Your task to perform on an android device: toggle pop-ups in chrome Image 0: 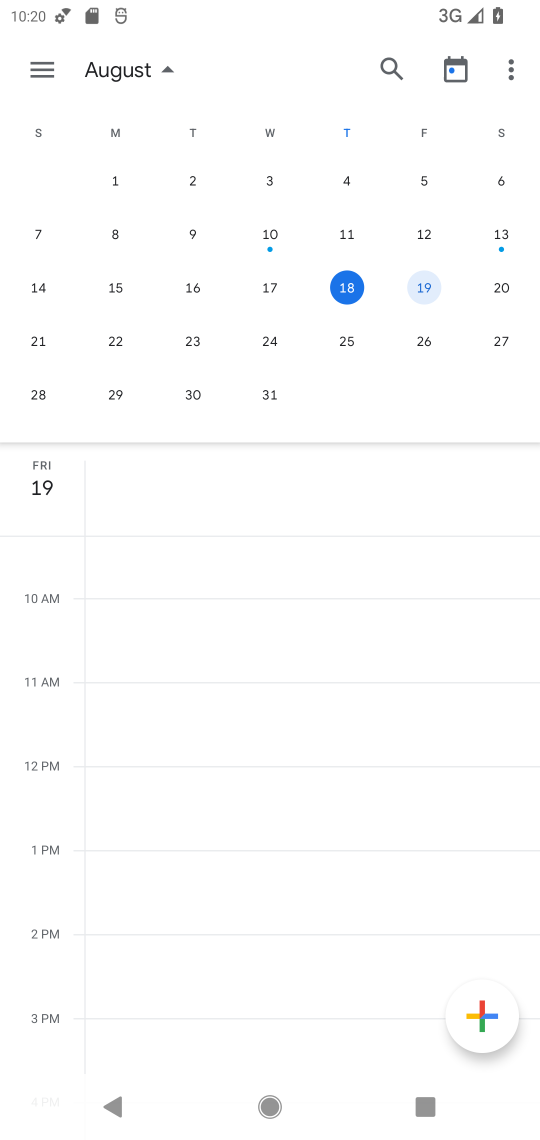
Step 0: press home button
Your task to perform on an android device: toggle pop-ups in chrome Image 1: 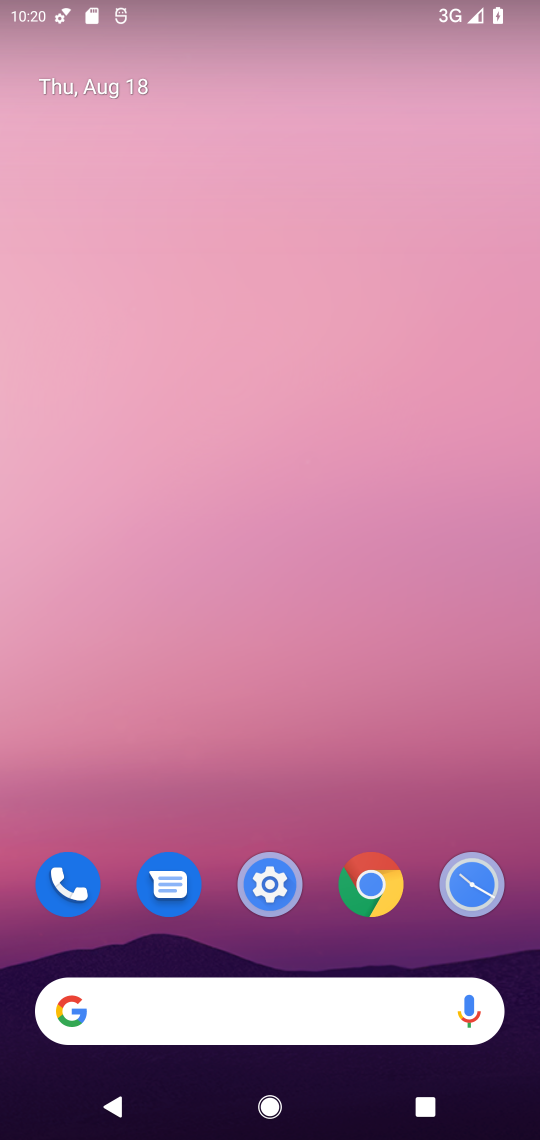
Step 1: click (363, 880)
Your task to perform on an android device: toggle pop-ups in chrome Image 2: 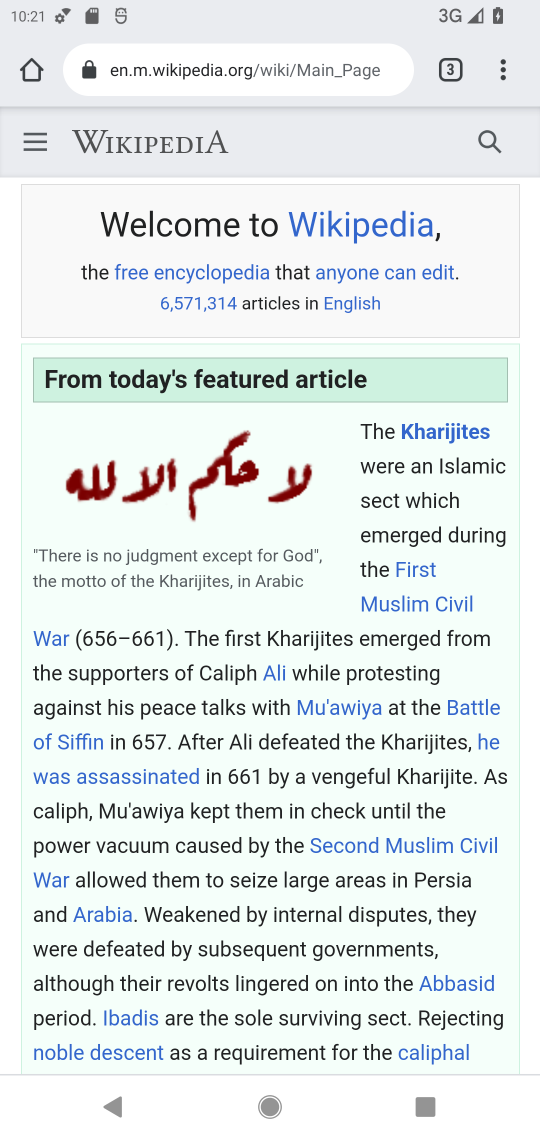
Step 2: click (517, 53)
Your task to perform on an android device: toggle pop-ups in chrome Image 3: 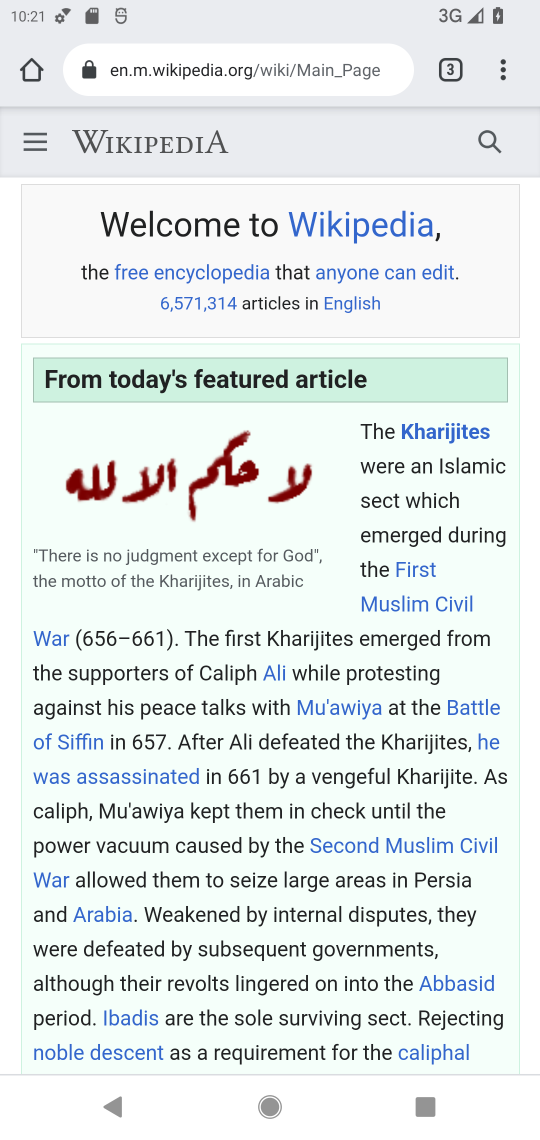
Step 3: click (516, 62)
Your task to perform on an android device: toggle pop-ups in chrome Image 4: 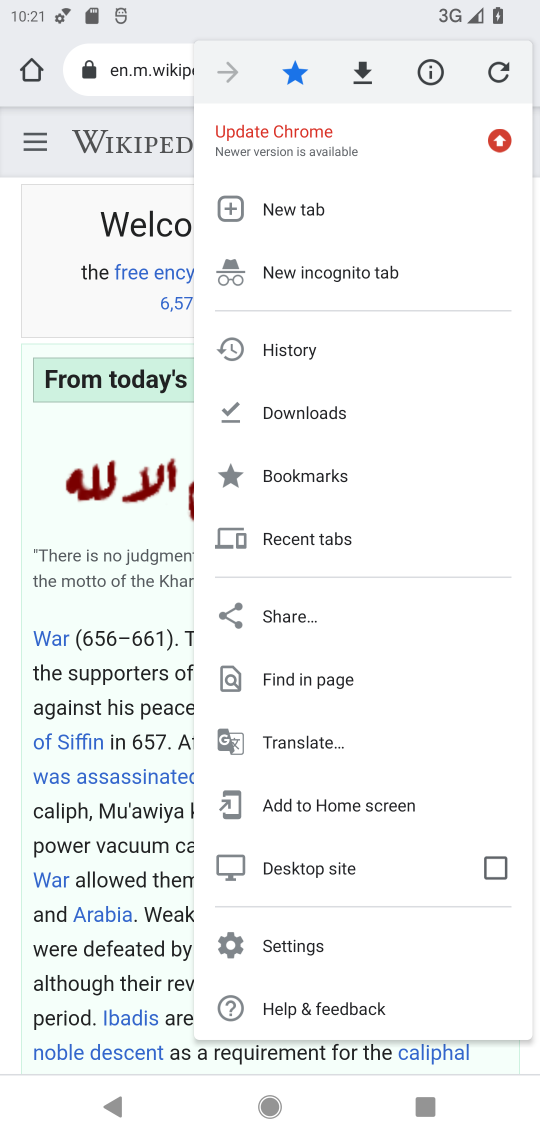
Step 4: click (277, 956)
Your task to perform on an android device: toggle pop-ups in chrome Image 5: 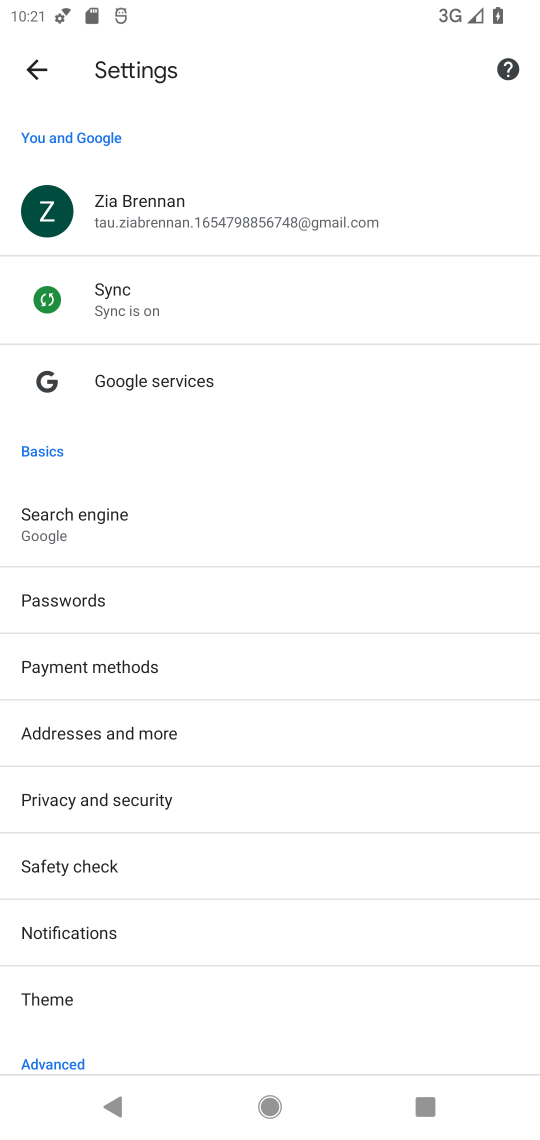
Step 5: drag from (130, 931) to (270, 116)
Your task to perform on an android device: toggle pop-ups in chrome Image 6: 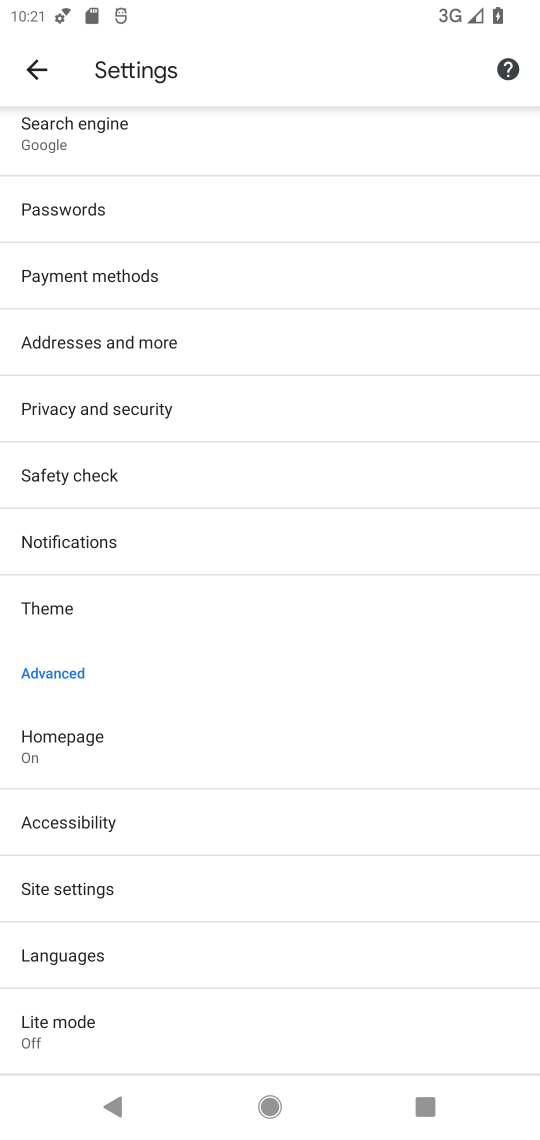
Step 6: drag from (195, 995) to (313, 158)
Your task to perform on an android device: toggle pop-ups in chrome Image 7: 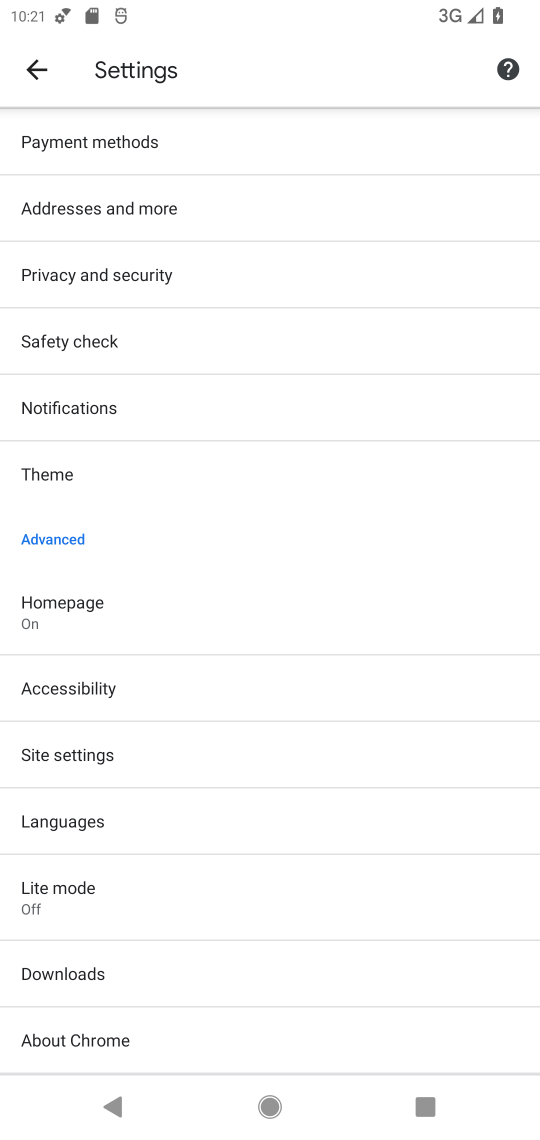
Step 7: click (83, 745)
Your task to perform on an android device: toggle pop-ups in chrome Image 8: 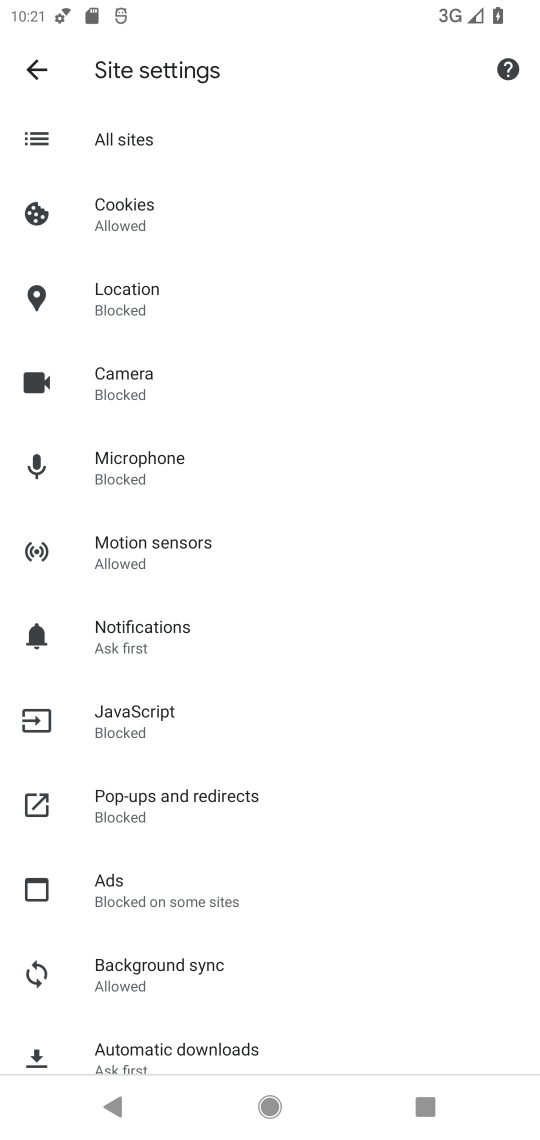
Step 8: click (174, 799)
Your task to perform on an android device: toggle pop-ups in chrome Image 9: 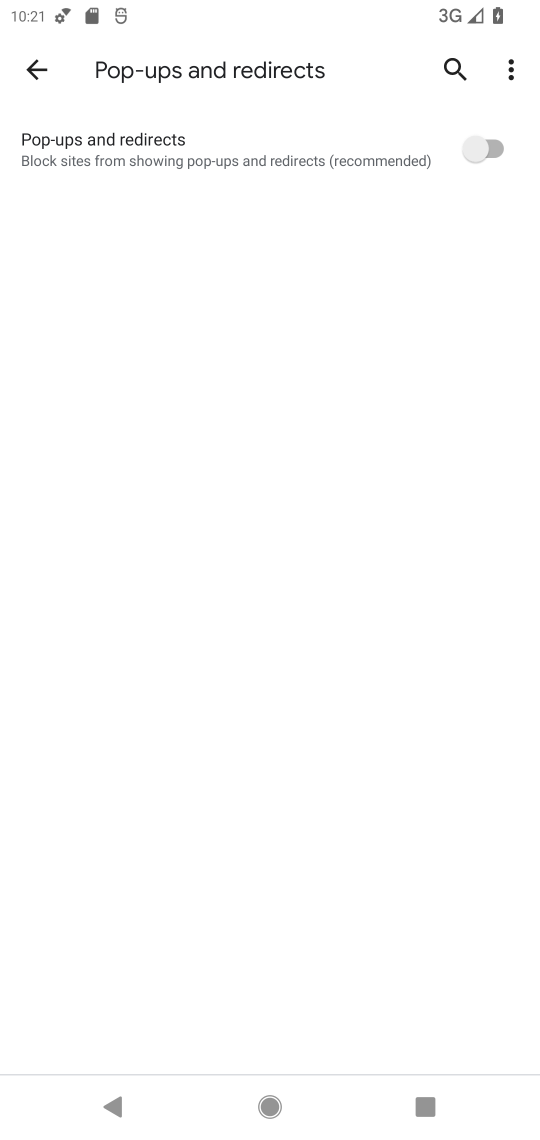
Step 9: click (490, 150)
Your task to perform on an android device: toggle pop-ups in chrome Image 10: 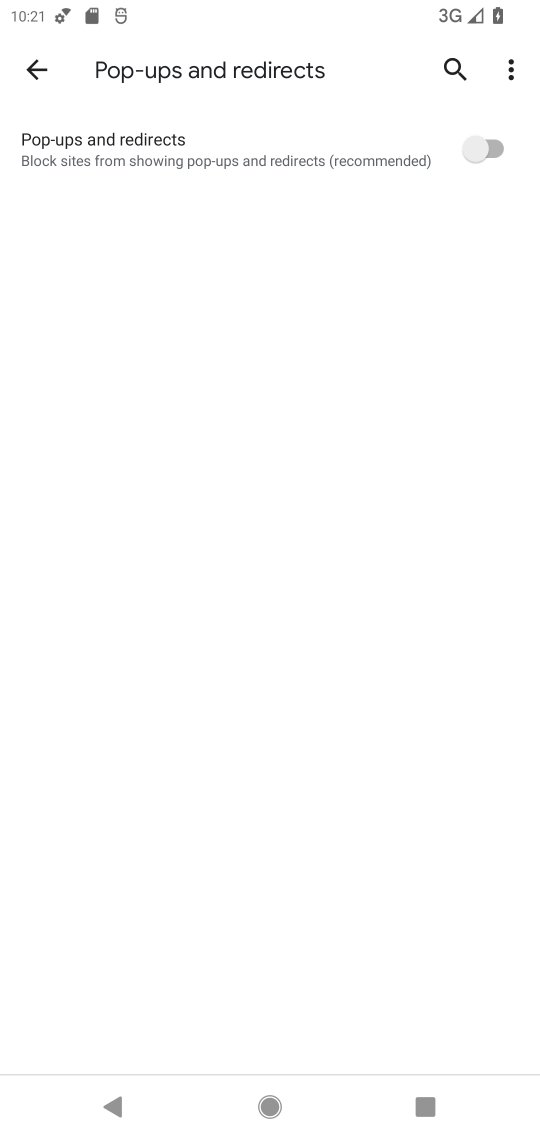
Step 10: click (490, 150)
Your task to perform on an android device: toggle pop-ups in chrome Image 11: 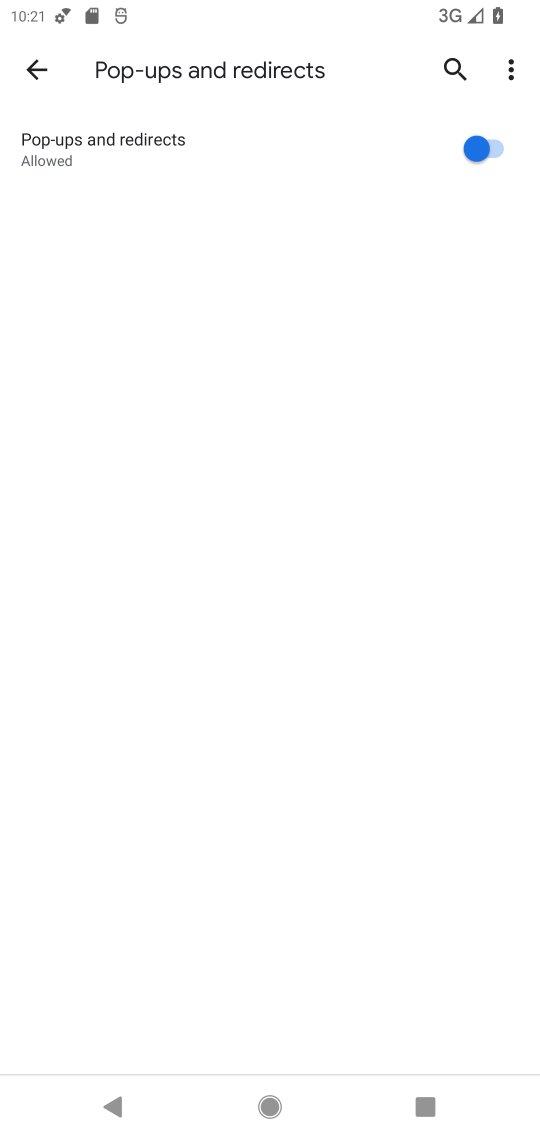
Step 11: click (490, 150)
Your task to perform on an android device: toggle pop-ups in chrome Image 12: 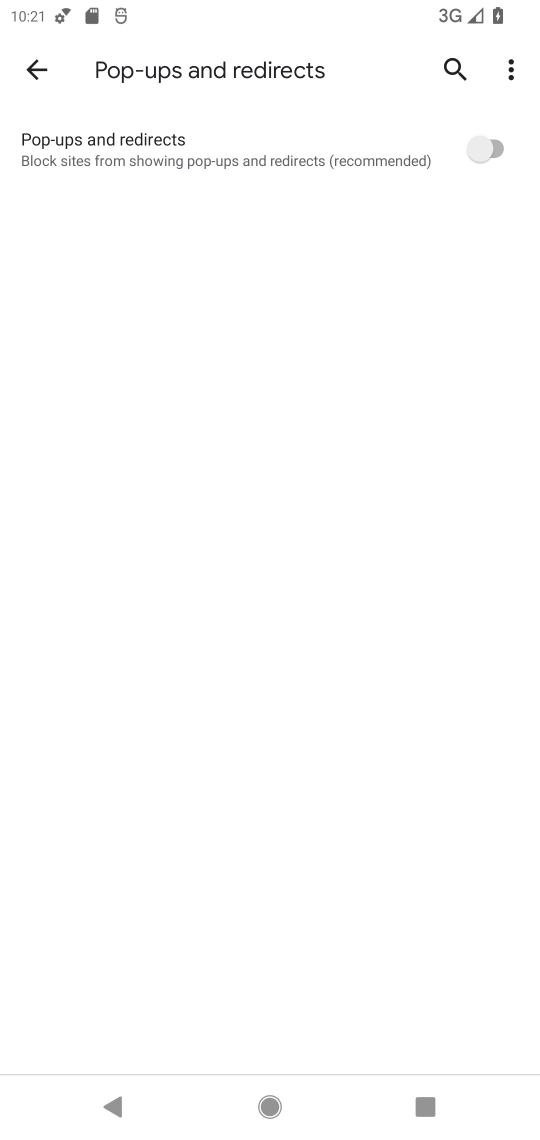
Step 12: click (490, 150)
Your task to perform on an android device: toggle pop-ups in chrome Image 13: 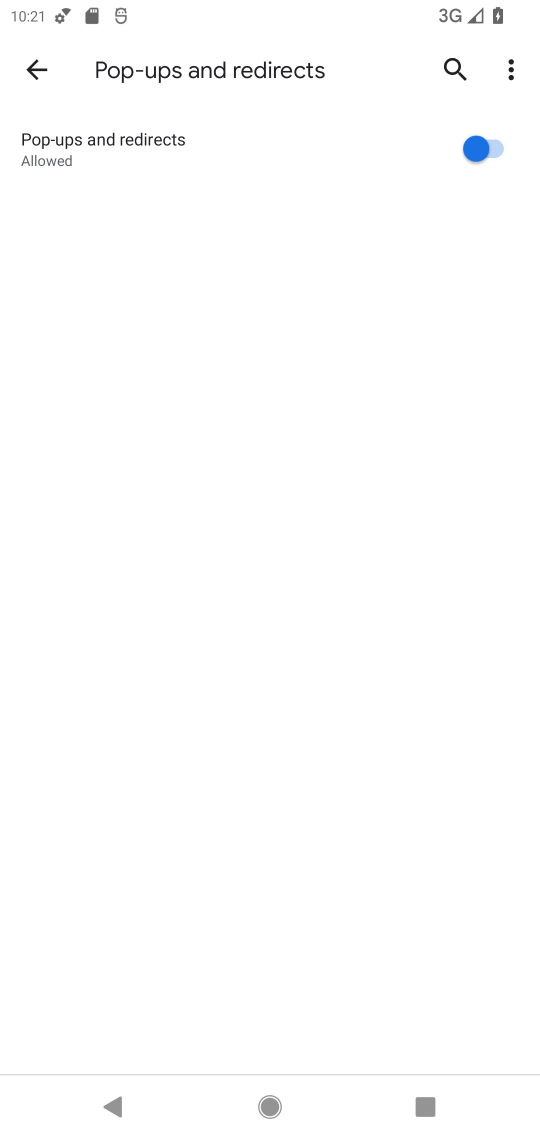
Step 13: click (490, 150)
Your task to perform on an android device: toggle pop-ups in chrome Image 14: 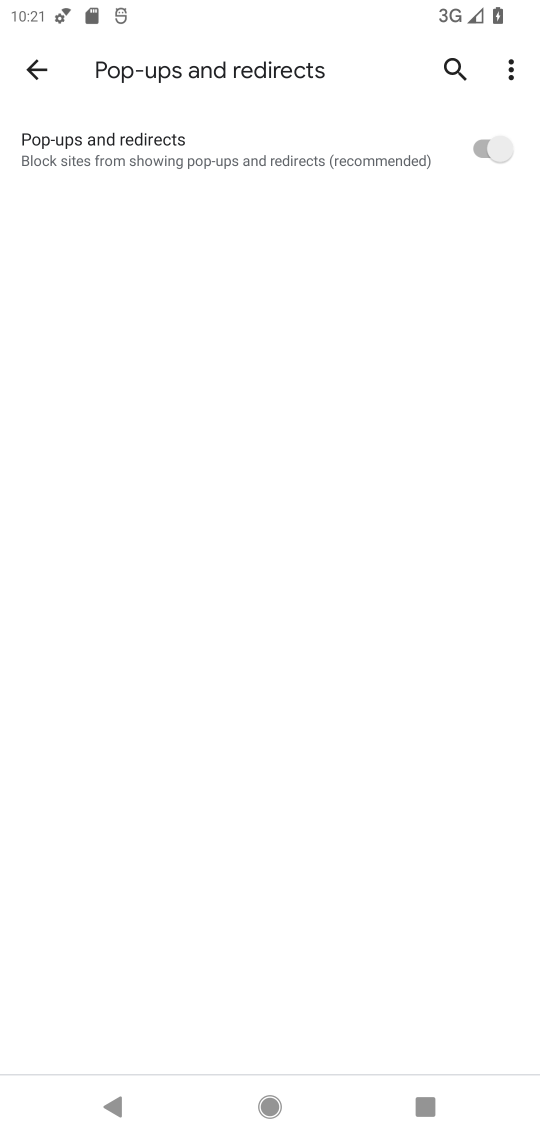
Step 14: click (490, 150)
Your task to perform on an android device: toggle pop-ups in chrome Image 15: 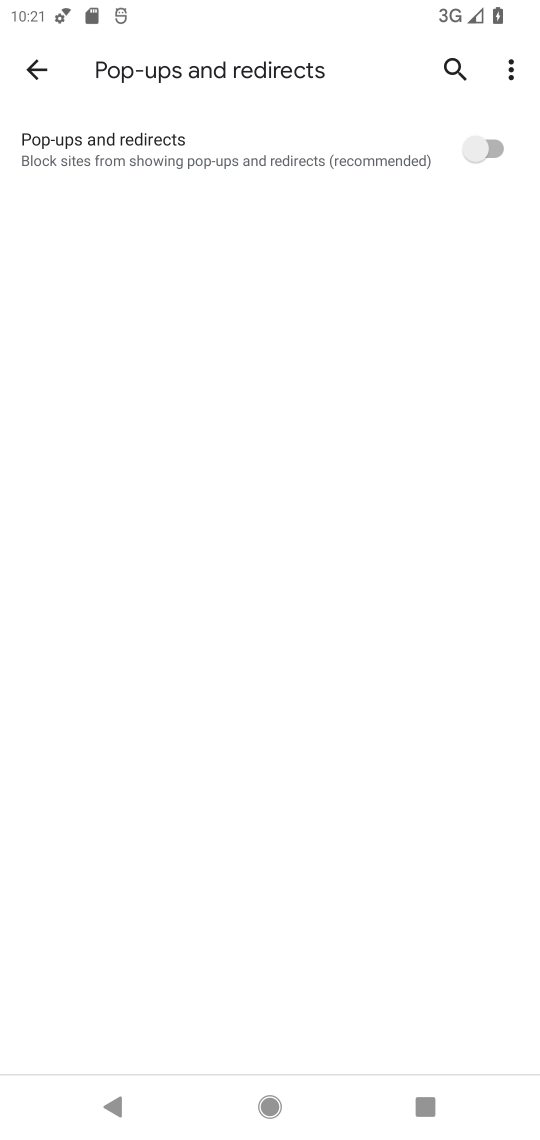
Step 15: task complete